Your task to perform on an android device: Search for pizza restaurants on Maps Image 0: 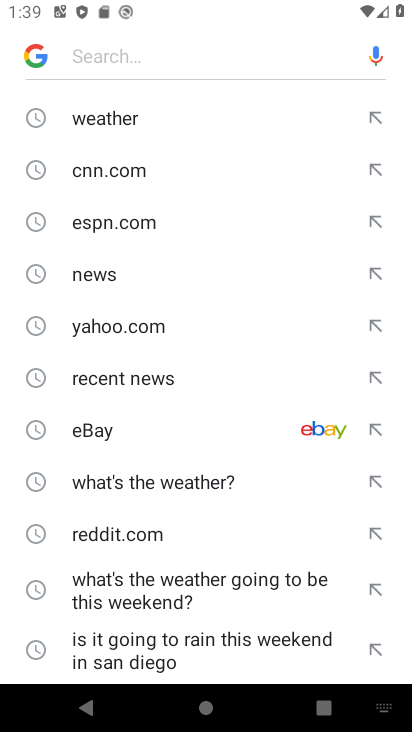
Step 0: press home button
Your task to perform on an android device: Search for pizza restaurants on Maps Image 1: 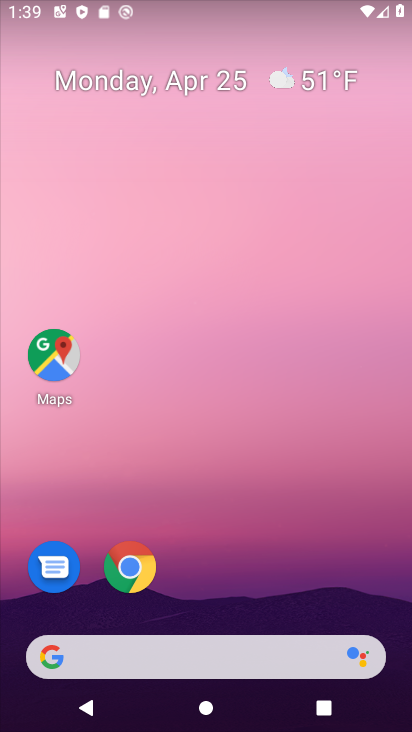
Step 1: click (57, 339)
Your task to perform on an android device: Search for pizza restaurants on Maps Image 2: 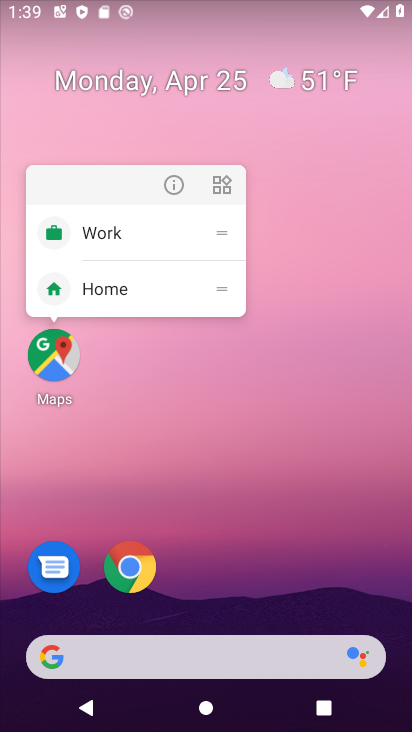
Step 2: click (43, 374)
Your task to perform on an android device: Search for pizza restaurants on Maps Image 3: 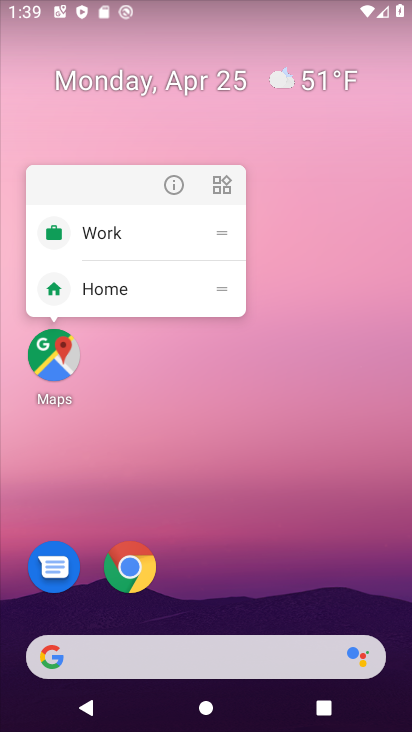
Step 3: click (47, 397)
Your task to perform on an android device: Search for pizza restaurants on Maps Image 4: 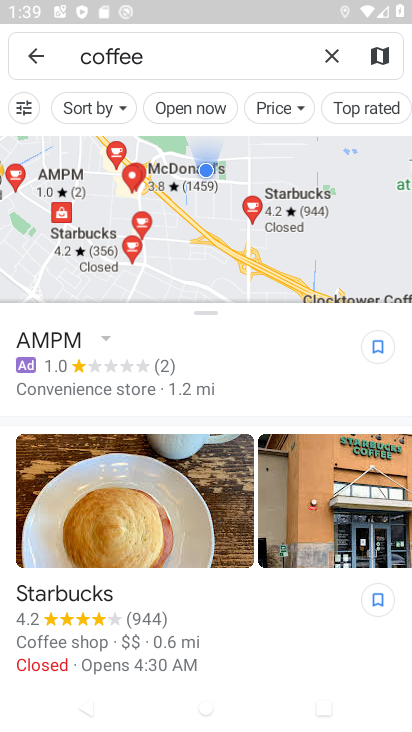
Step 4: click (334, 61)
Your task to perform on an android device: Search for pizza restaurants on Maps Image 5: 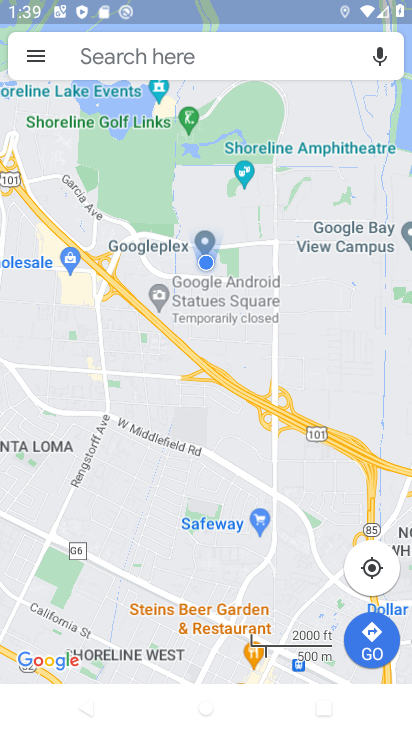
Step 5: click (263, 46)
Your task to perform on an android device: Search for pizza restaurants on Maps Image 6: 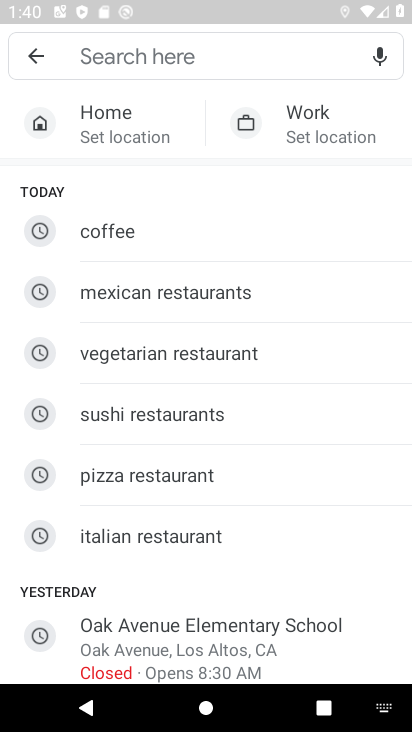
Step 6: click (244, 463)
Your task to perform on an android device: Search for pizza restaurants on Maps Image 7: 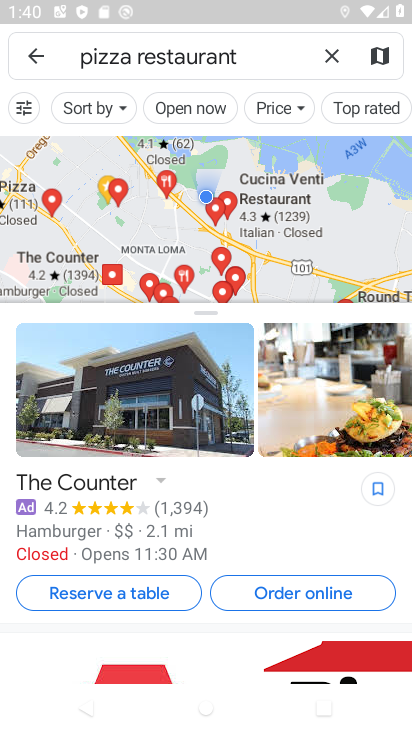
Step 7: task complete